Your task to perform on an android device: check battery use Image 0: 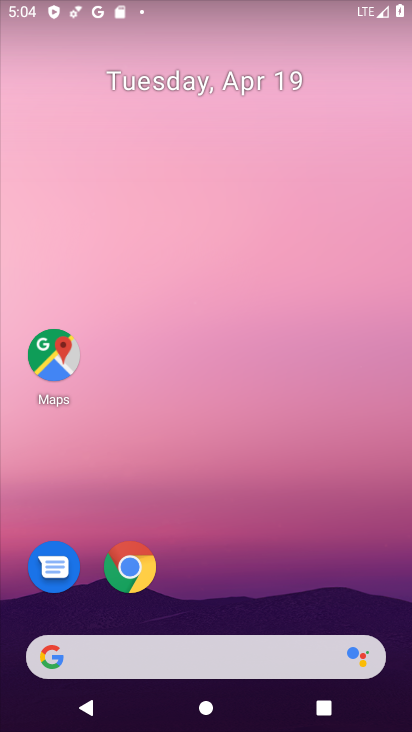
Step 0: drag from (257, 628) to (256, 129)
Your task to perform on an android device: check battery use Image 1: 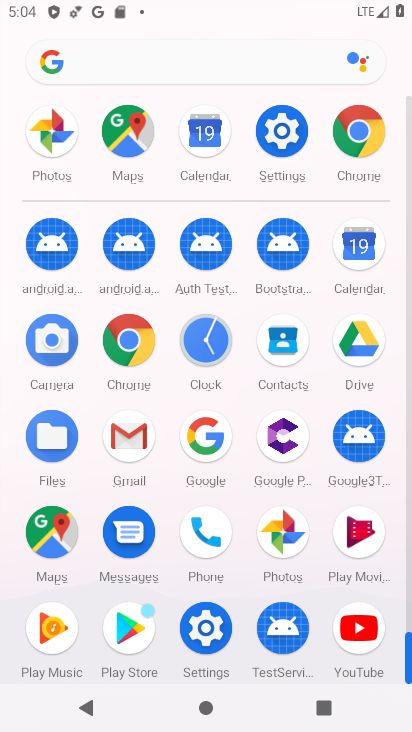
Step 1: click (197, 633)
Your task to perform on an android device: check battery use Image 2: 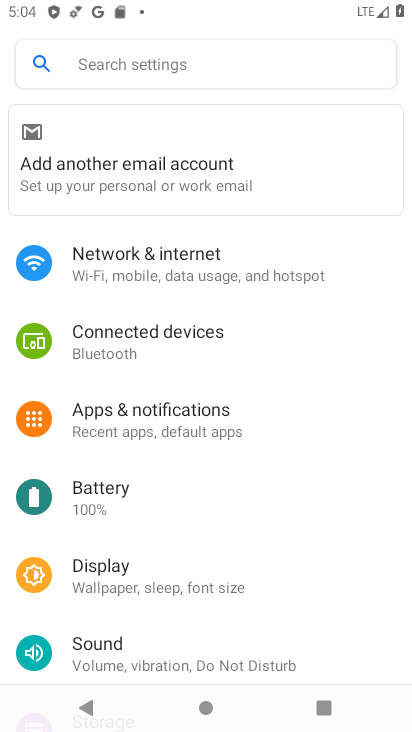
Step 2: click (135, 508)
Your task to perform on an android device: check battery use Image 3: 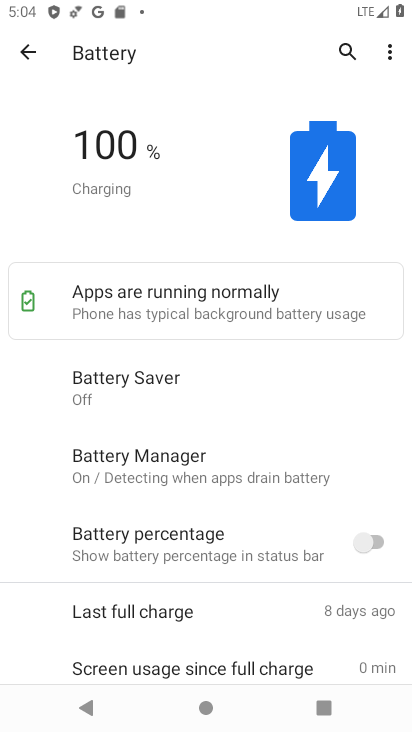
Step 3: task complete